Your task to perform on an android device: change the upload size in google photos Image 0: 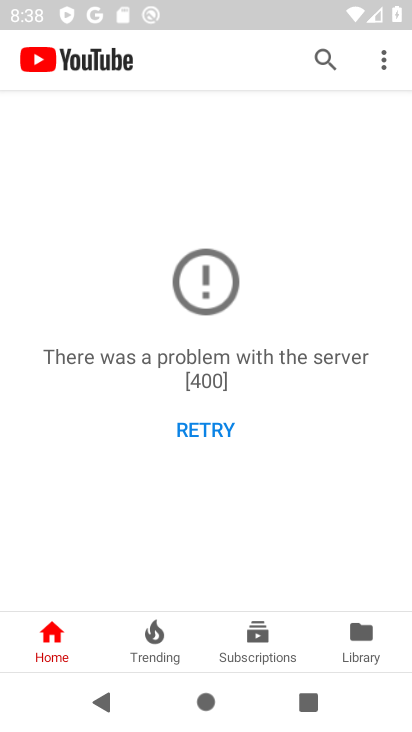
Step 0: press back button
Your task to perform on an android device: change the upload size in google photos Image 1: 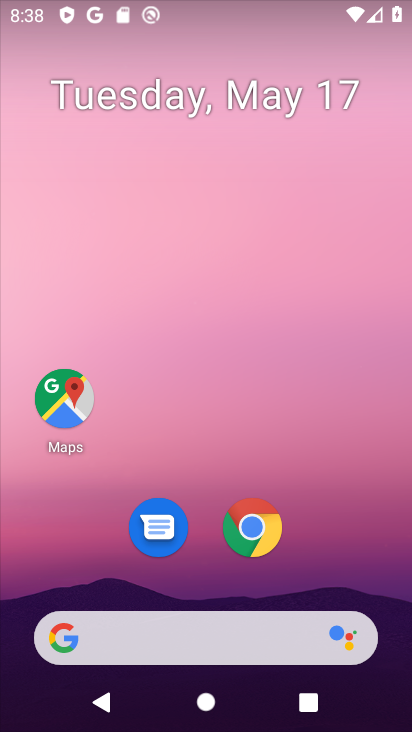
Step 1: drag from (205, 590) to (185, 13)
Your task to perform on an android device: change the upload size in google photos Image 2: 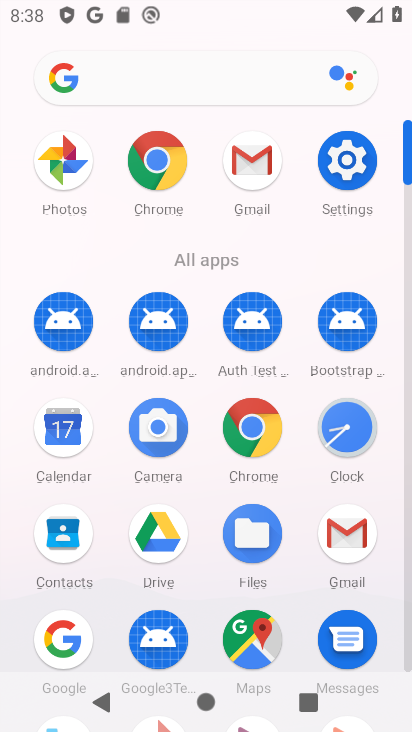
Step 2: drag from (210, 575) to (179, 201)
Your task to perform on an android device: change the upload size in google photos Image 3: 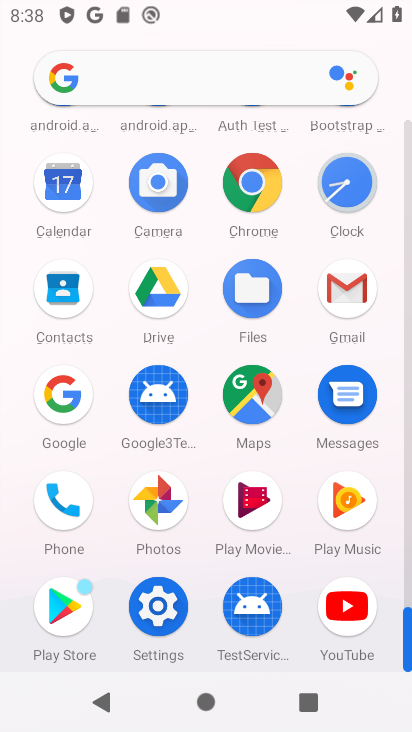
Step 3: click (156, 505)
Your task to perform on an android device: change the upload size in google photos Image 4: 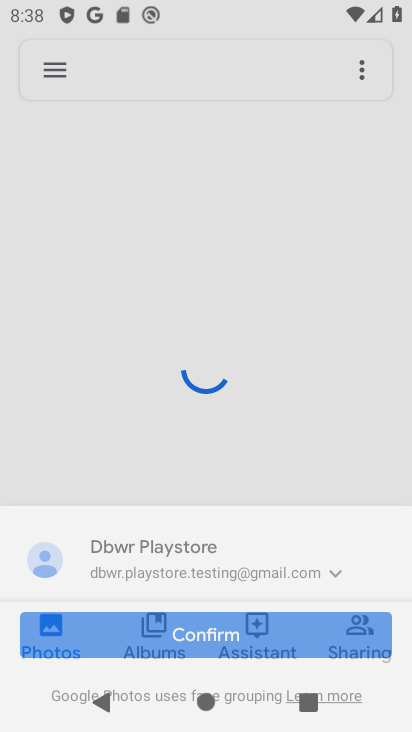
Step 4: click (52, 70)
Your task to perform on an android device: change the upload size in google photos Image 5: 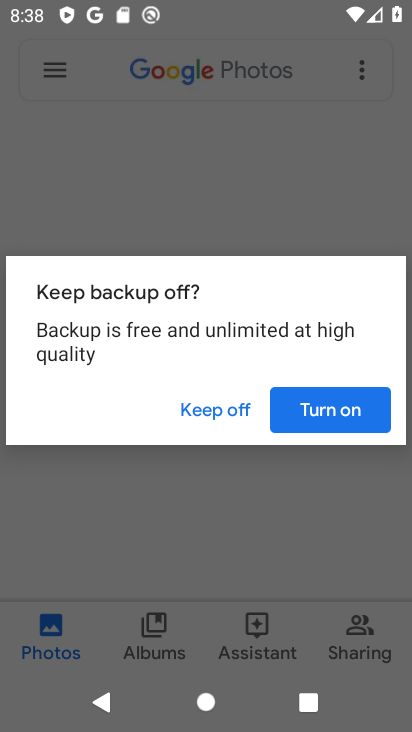
Step 5: click (321, 408)
Your task to perform on an android device: change the upload size in google photos Image 6: 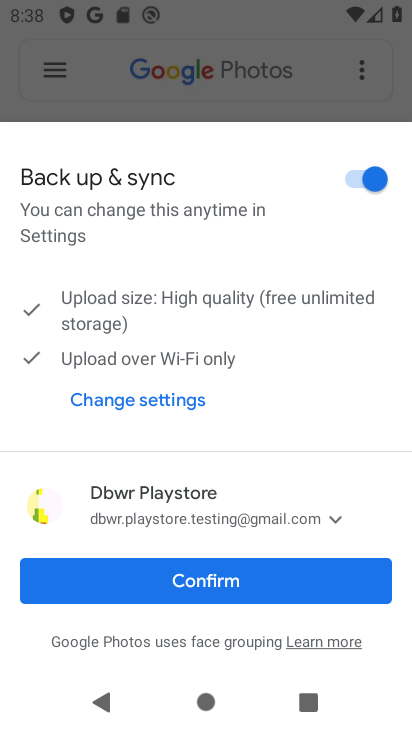
Step 6: click (176, 582)
Your task to perform on an android device: change the upload size in google photos Image 7: 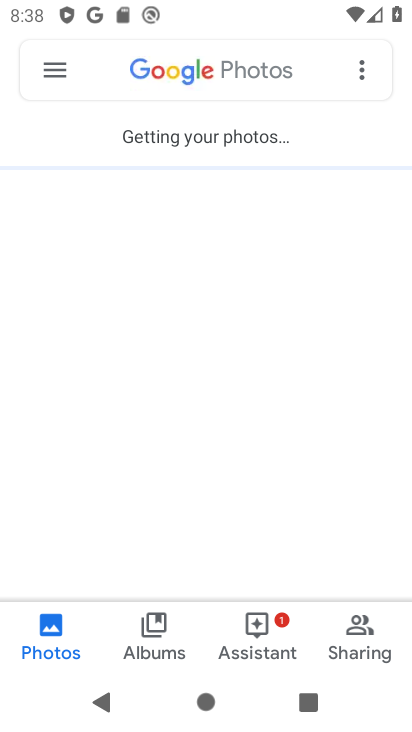
Step 7: click (37, 66)
Your task to perform on an android device: change the upload size in google photos Image 8: 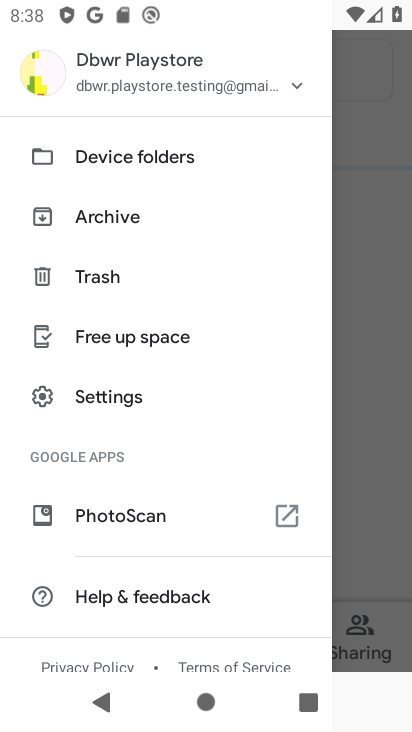
Step 8: click (108, 379)
Your task to perform on an android device: change the upload size in google photos Image 9: 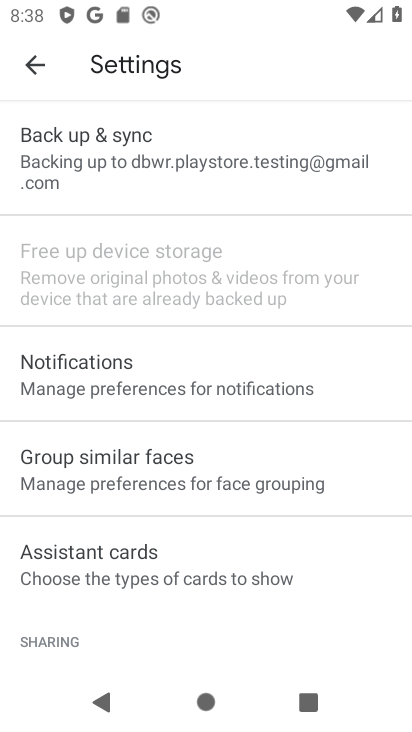
Step 9: click (107, 184)
Your task to perform on an android device: change the upload size in google photos Image 10: 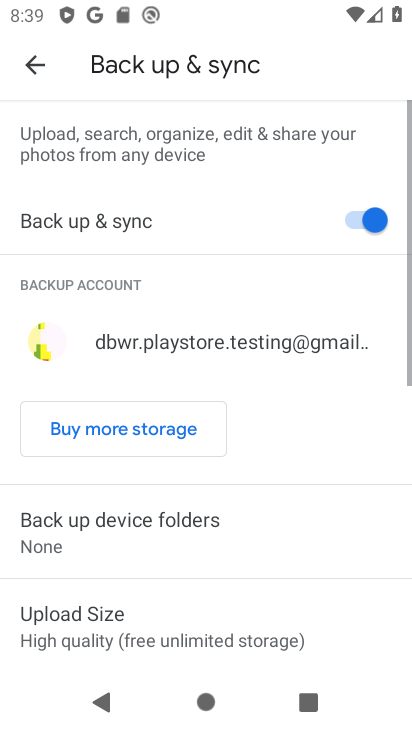
Step 10: drag from (157, 494) to (84, 127)
Your task to perform on an android device: change the upload size in google photos Image 11: 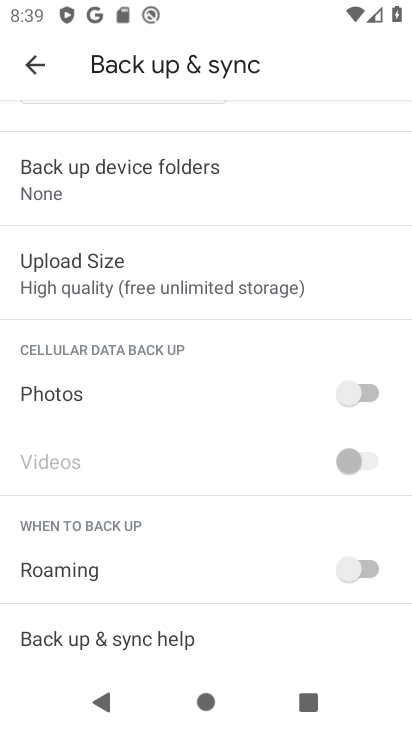
Step 11: click (93, 290)
Your task to perform on an android device: change the upload size in google photos Image 12: 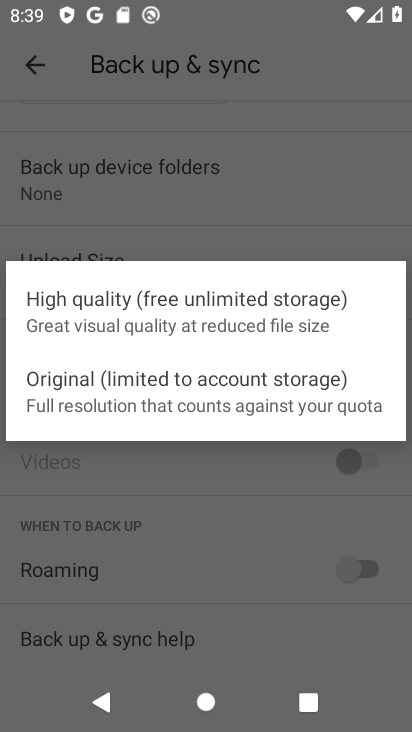
Step 12: click (122, 379)
Your task to perform on an android device: change the upload size in google photos Image 13: 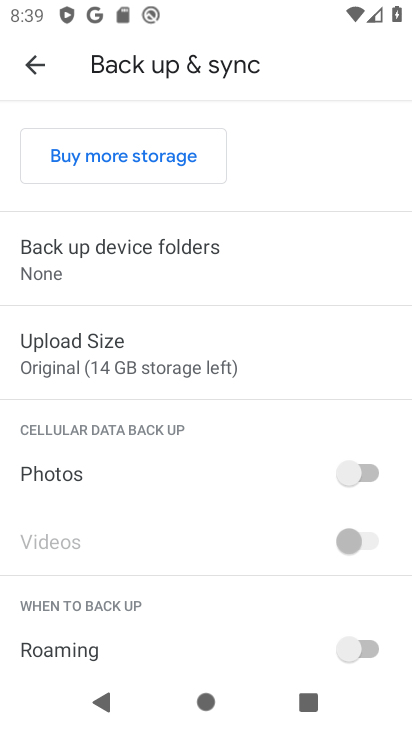
Step 13: task complete